Your task to perform on an android device: When is my next appointment? Image 0: 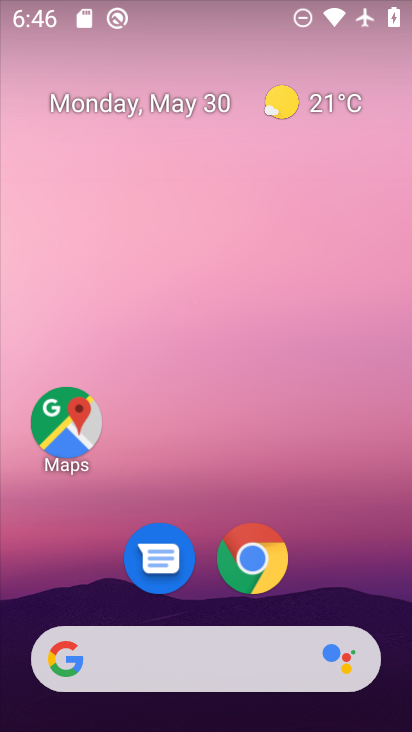
Step 0: drag from (341, 580) to (189, 197)
Your task to perform on an android device: When is my next appointment? Image 1: 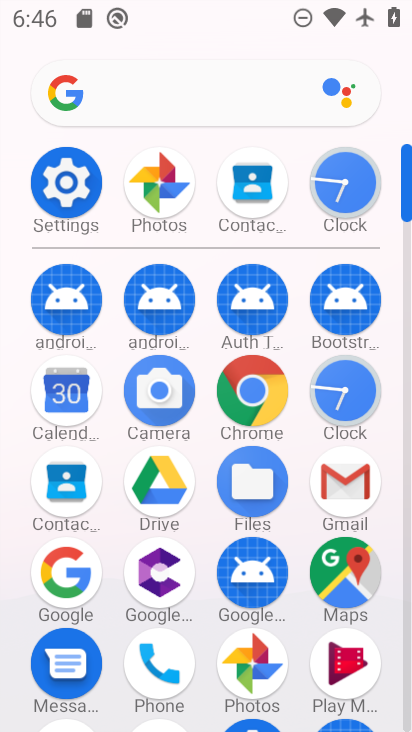
Step 1: click (47, 398)
Your task to perform on an android device: When is my next appointment? Image 2: 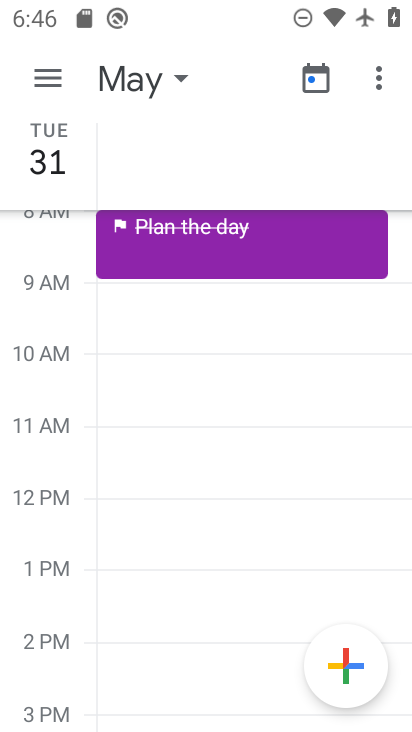
Step 2: click (187, 79)
Your task to perform on an android device: When is my next appointment? Image 3: 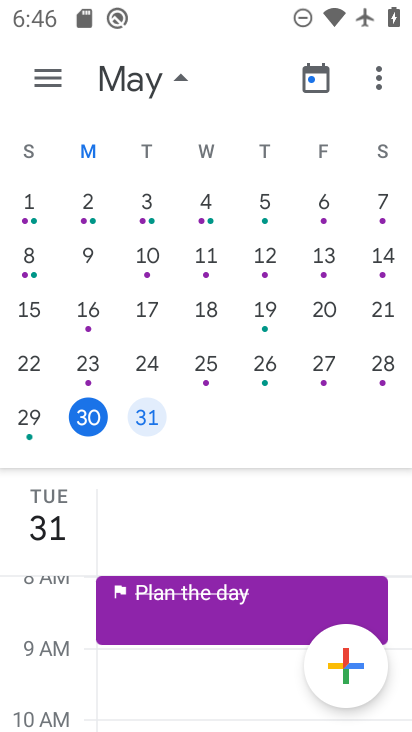
Step 3: click (85, 420)
Your task to perform on an android device: When is my next appointment? Image 4: 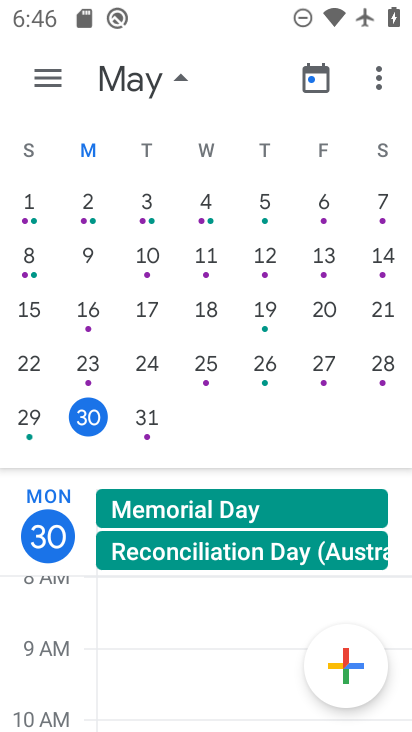
Step 4: task complete